Your task to perform on an android device: Show me the alarms in the clock app Image 0: 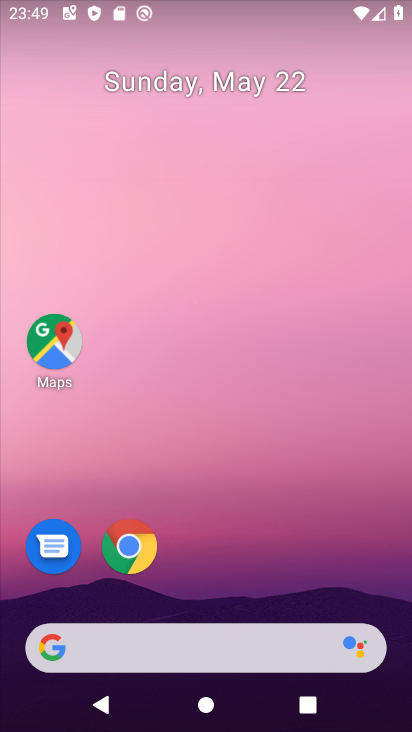
Step 0: drag from (403, 528) to (284, 16)
Your task to perform on an android device: Show me the alarms in the clock app Image 1: 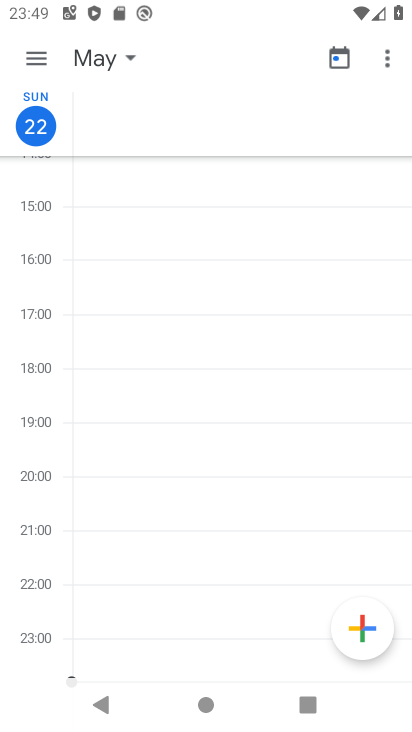
Step 1: press home button
Your task to perform on an android device: Show me the alarms in the clock app Image 2: 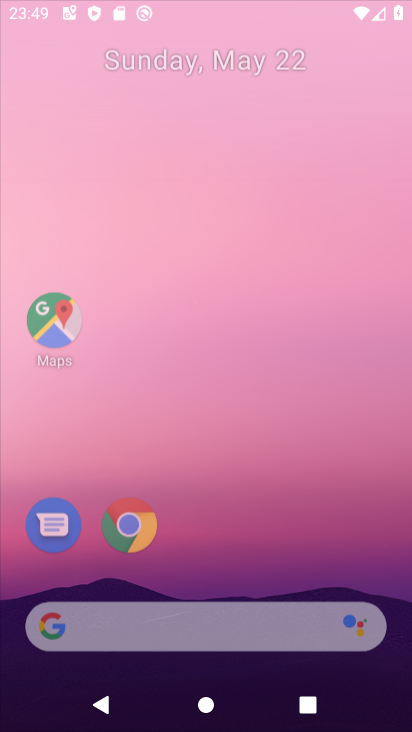
Step 2: drag from (231, 615) to (260, 74)
Your task to perform on an android device: Show me the alarms in the clock app Image 3: 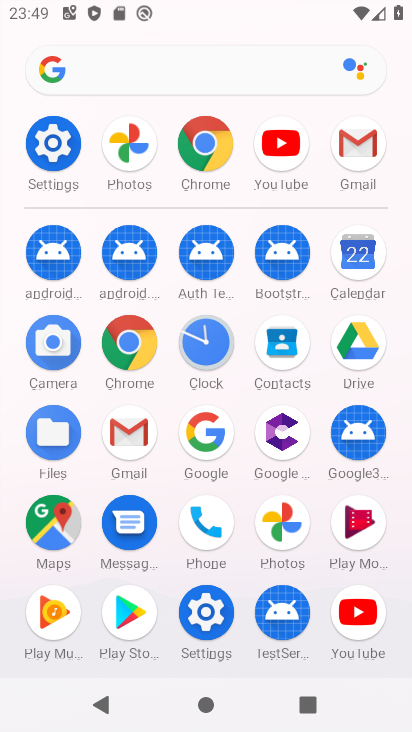
Step 3: click (54, 144)
Your task to perform on an android device: Show me the alarms in the clock app Image 4: 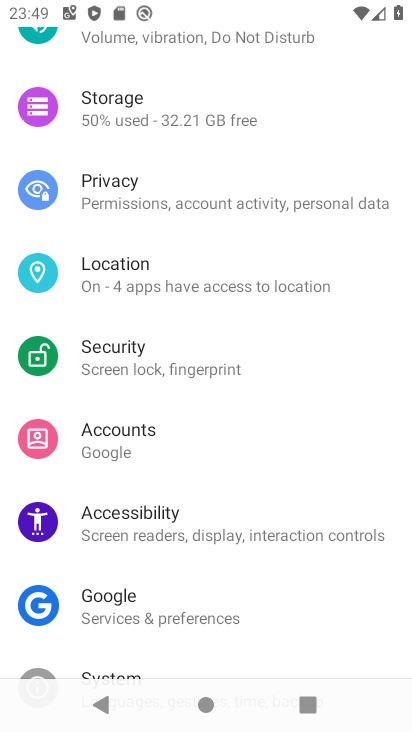
Step 4: drag from (191, 507) to (354, 731)
Your task to perform on an android device: Show me the alarms in the clock app Image 5: 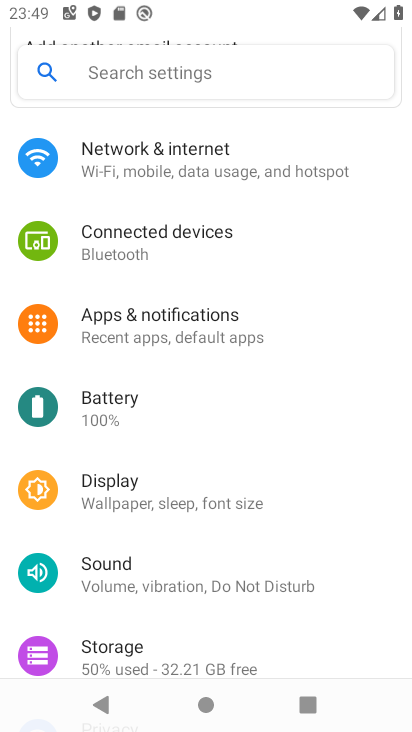
Step 5: press home button
Your task to perform on an android device: Show me the alarms in the clock app Image 6: 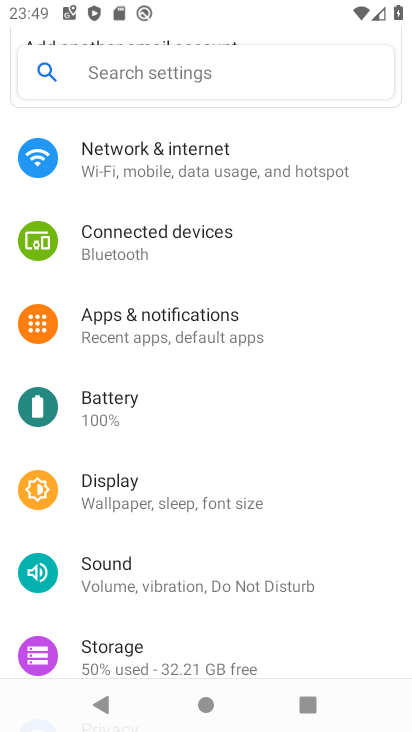
Step 6: drag from (354, 731) to (411, 444)
Your task to perform on an android device: Show me the alarms in the clock app Image 7: 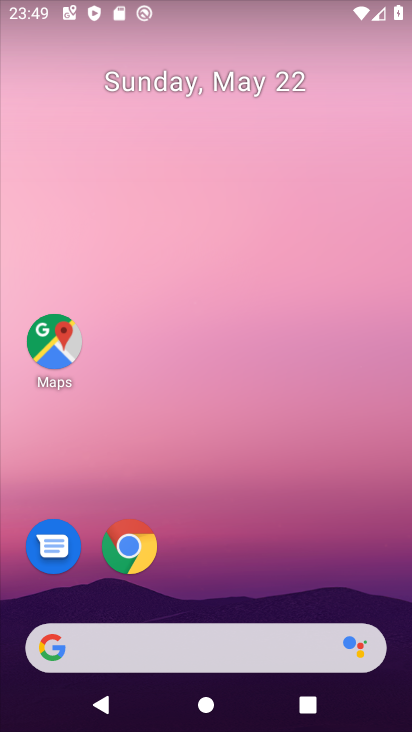
Step 7: drag from (167, 623) to (167, 210)
Your task to perform on an android device: Show me the alarms in the clock app Image 8: 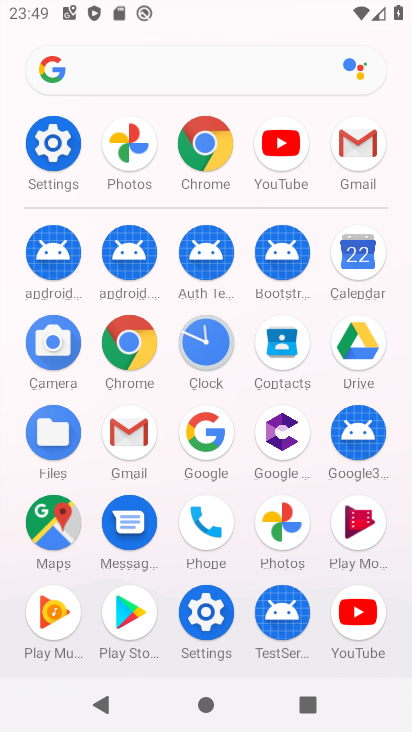
Step 8: click (202, 332)
Your task to perform on an android device: Show me the alarms in the clock app Image 9: 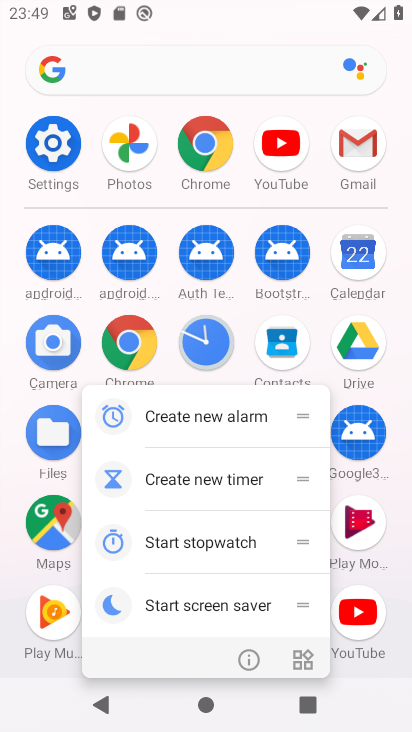
Step 9: click (248, 662)
Your task to perform on an android device: Show me the alarms in the clock app Image 10: 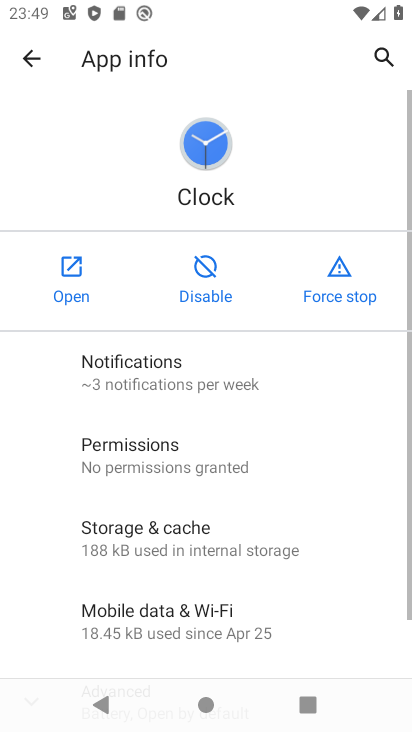
Step 10: click (68, 279)
Your task to perform on an android device: Show me the alarms in the clock app Image 11: 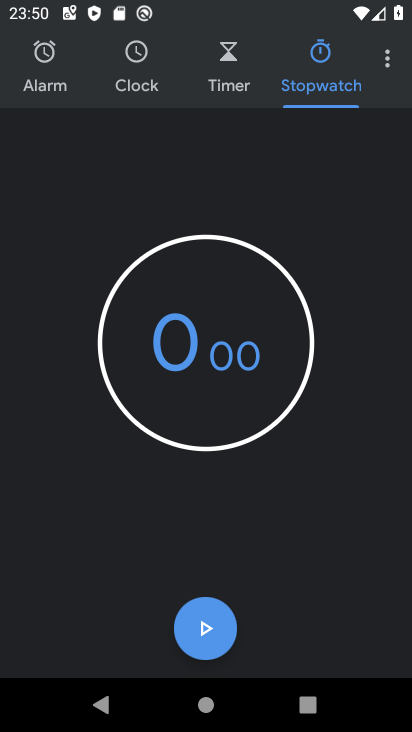
Step 11: click (387, 64)
Your task to perform on an android device: Show me the alarms in the clock app Image 12: 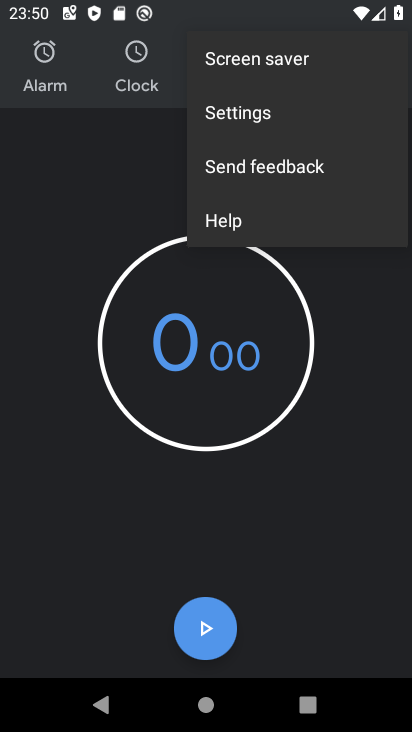
Step 12: click (72, 56)
Your task to perform on an android device: Show me the alarms in the clock app Image 13: 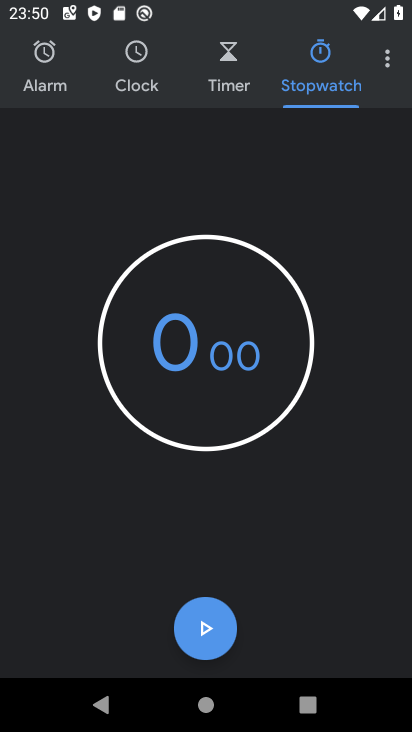
Step 13: click (70, 56)
Your task to perform on an android device: Show me the alarms in the clock app Image 14: 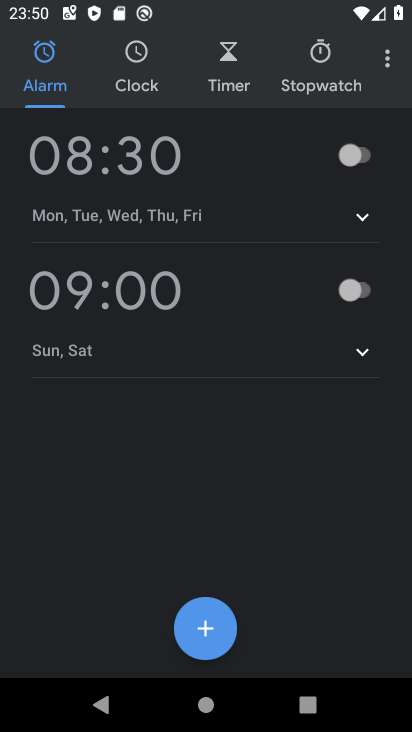
Step 14: click (134, 66)
Your task to perform on an android device: Show me the alarms in the clock app Image 15: 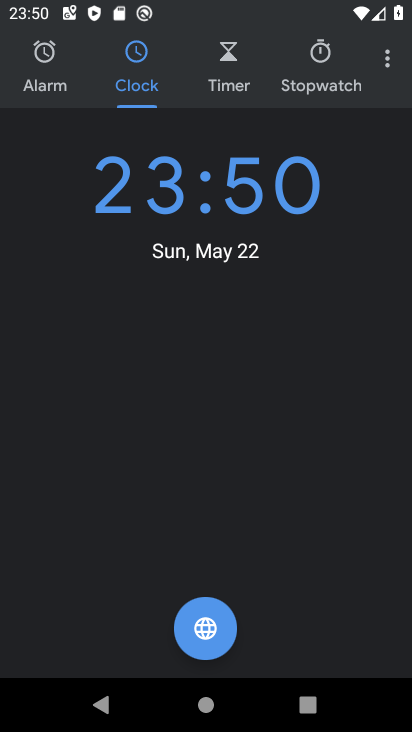
Step 15: drag from (285, 449) to (314, 190)
Your task to perform on an android device: Show me the alarms in the clock app Image 16: 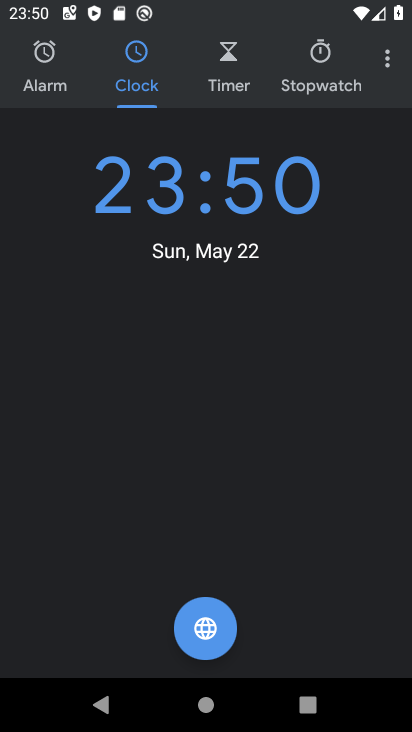
Step 16: click (295, 67)
Your task to perform on an android device: Show me the alarms in the clock app Image 17: 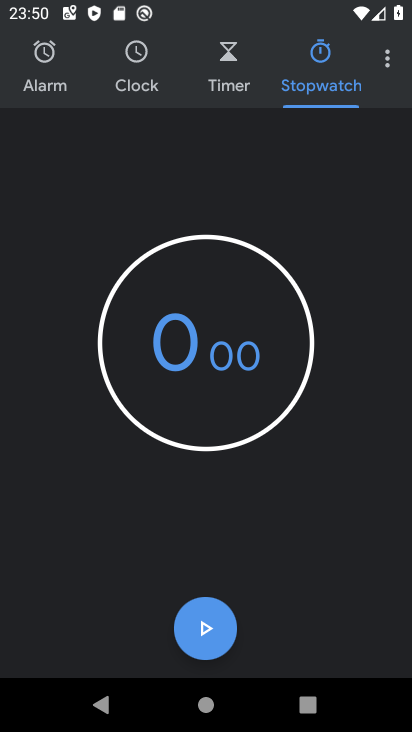
Step 17: click (248, 66)
Your task to perform on an android device: Show me the alarms in the clock app Image 18: 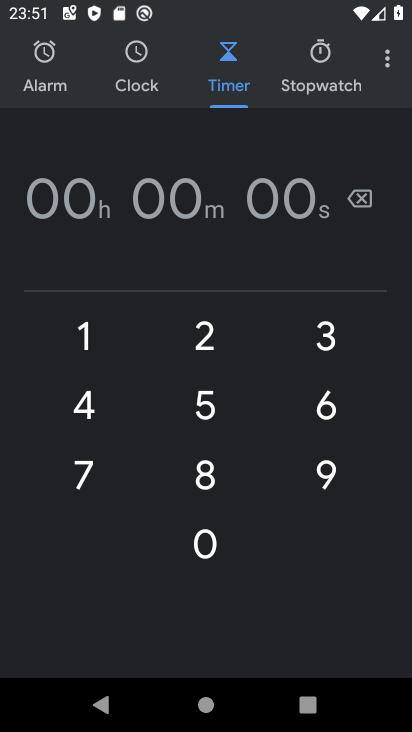
Step 18: click (144, 62)
Your task to perform on an android device: Show me the alarms in the clock app Image 19: 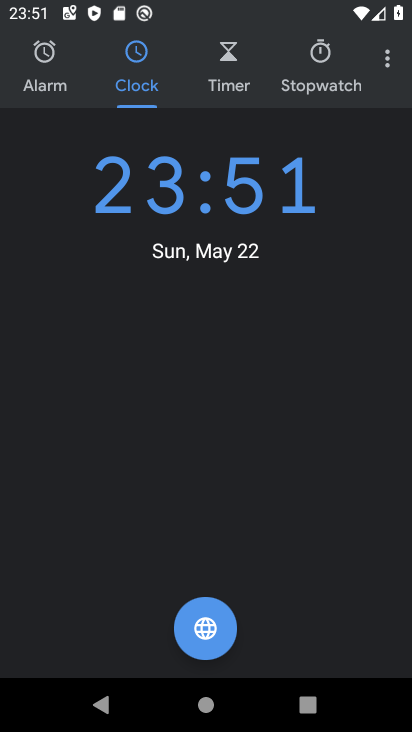
Step 19: click (68, 61)
Your task to perform on an android device: Show me the alarms in the clock app Image 20: 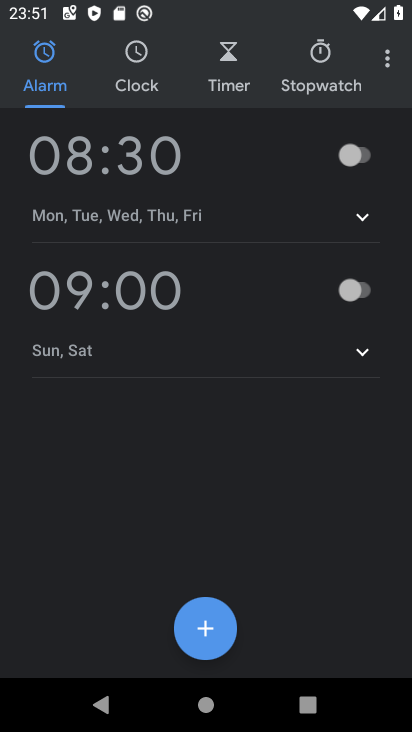
Step 20: click (132, 81)
Your task to perform on an android device: Show me the alarms in the clock app Image 21: 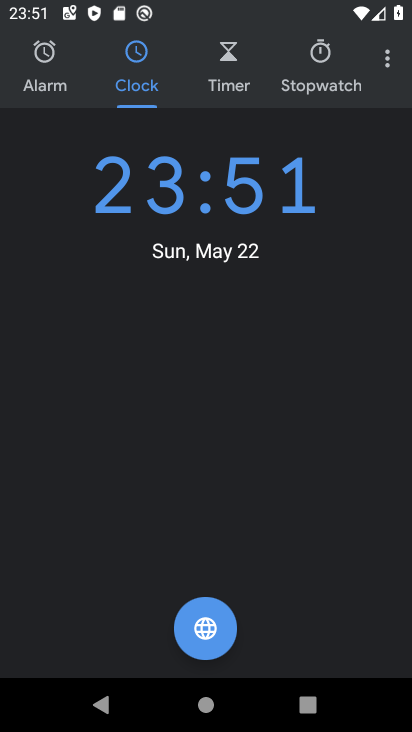
Step 21: click (60, 63)
Your task to perform on an android device: Show me the alarms in the clock app Image 22: 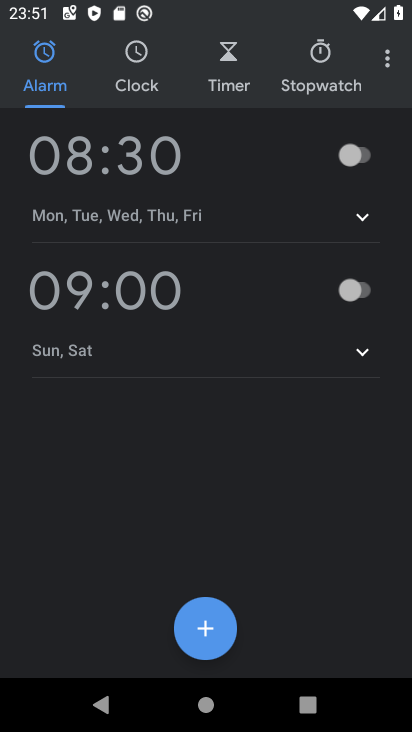
Step 22: task complete